Your task to perform on an android device: Set the phone to "Do not disturb". Image 0: 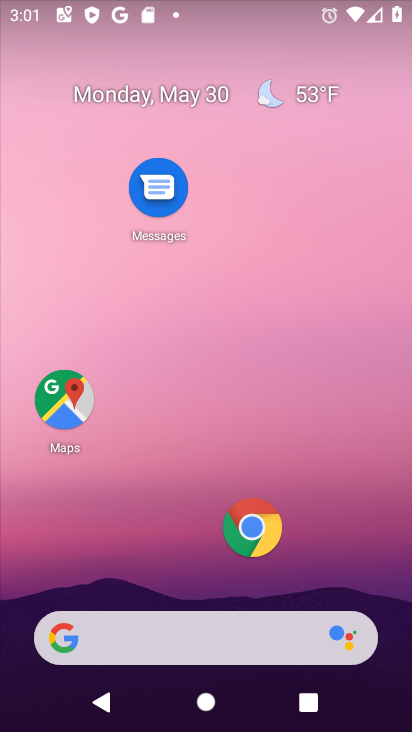
Step 0: drag from (146, 599) to (251, 153)
Your task to perform on an android device: Set the phone to "Do not disturb". Image 1: 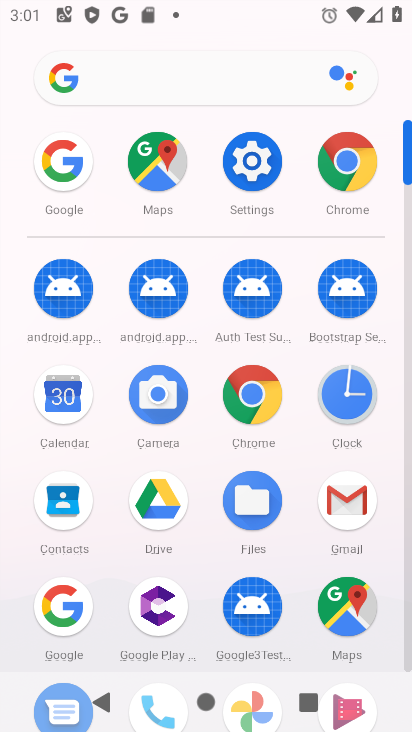
Step 1: drag from (218, 244) to (194, 78)
Your task to perform on an android device: Set the phone to "Do not disturb". Image 2: 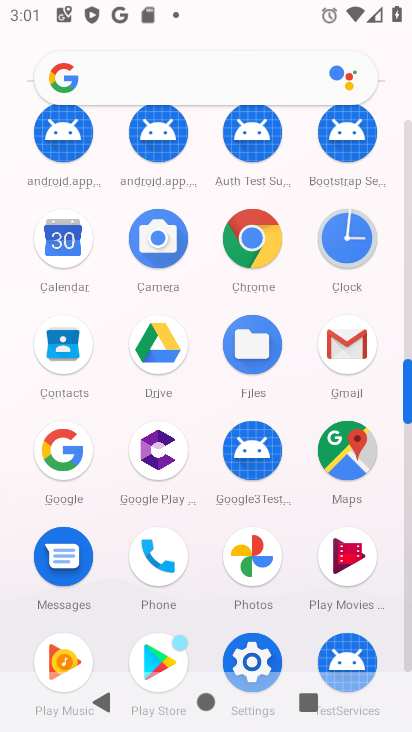
Step 2: click (269, 648)
Your task to perform on an android device: Set the phone to "Do not disturb". Image 3: 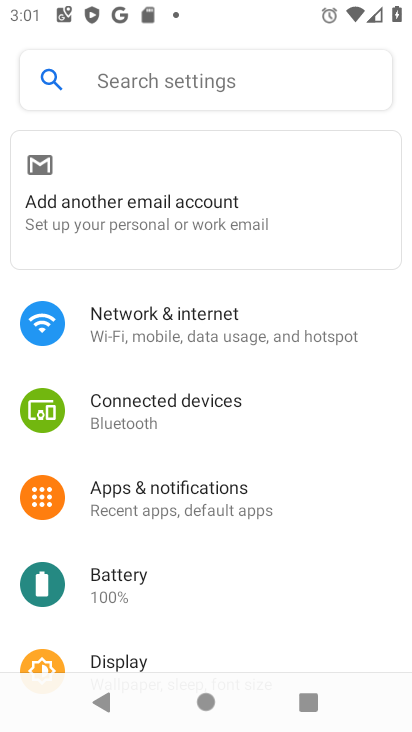
Step 3: drag from (224, 489) to (222, 111)
Your task to perform on an android device: Set the phone to "Do not disturb". Image 4: 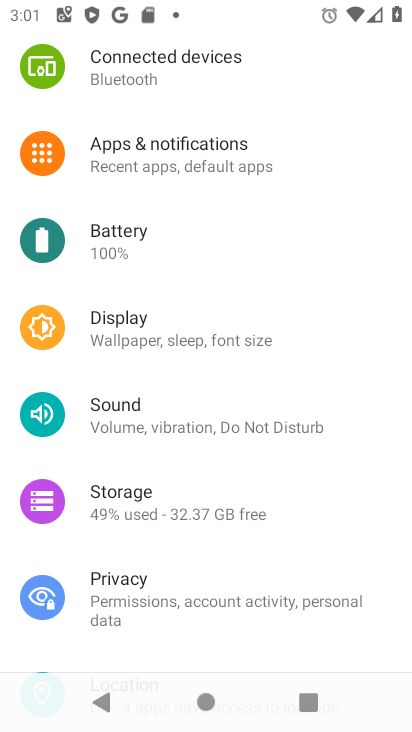
Step 4: click (216, 426)
Your task to perform on an android device: Set the phone to "Do not disturb". Image 5: 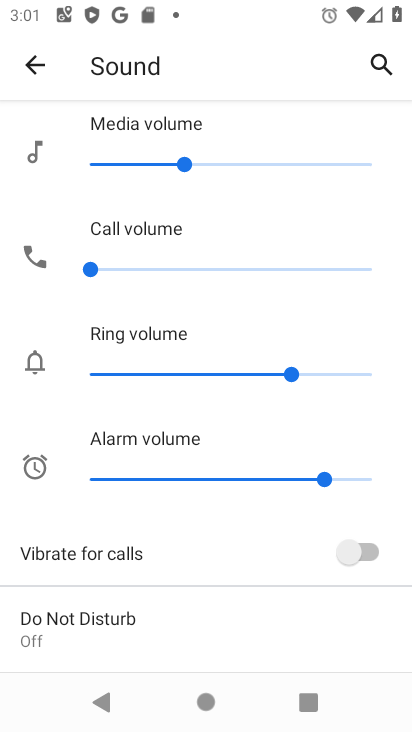
Step 5: drag from (206, 569) to (232, 224)
Your task to perform on an android device: Set the phone to "Do not disturb". Image 6: 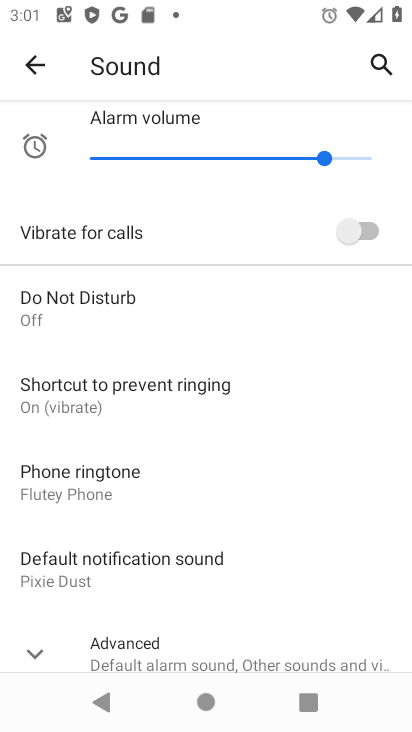
Step 6: click (153, 325)
Your task to perform on an android device: Set the phone to "Do not disturb". Image 7: 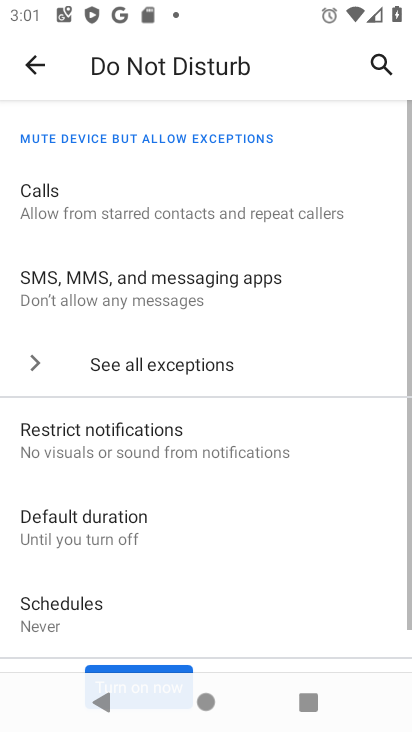
Step 7: drag from (191, 603) to (210, 264)
Your task to perform on an android device: Set the phone to "Do not disturb". Image 8: 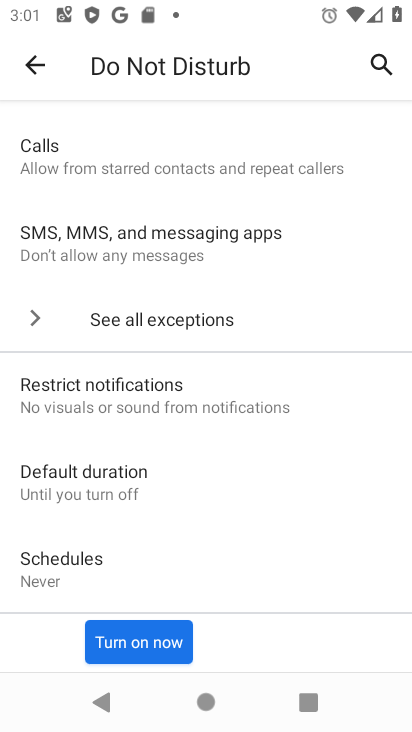
Step 8: click (178, 632)
Your task to perform on an android device: Set the phone to "Do not disturb". Image 9: 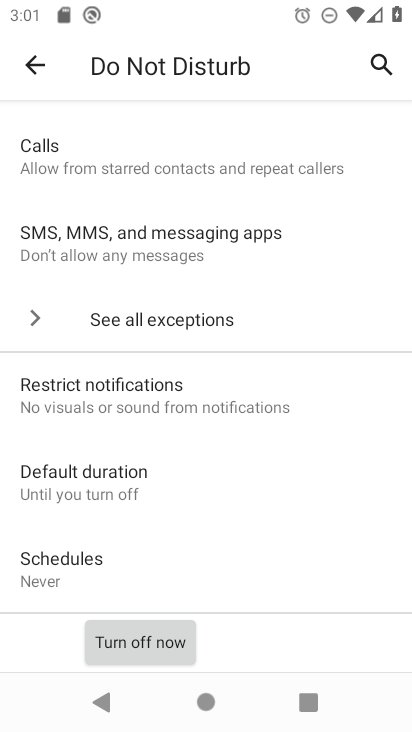
Step 9: task complete